Your task to perform on an android device: Open the map Image 0: 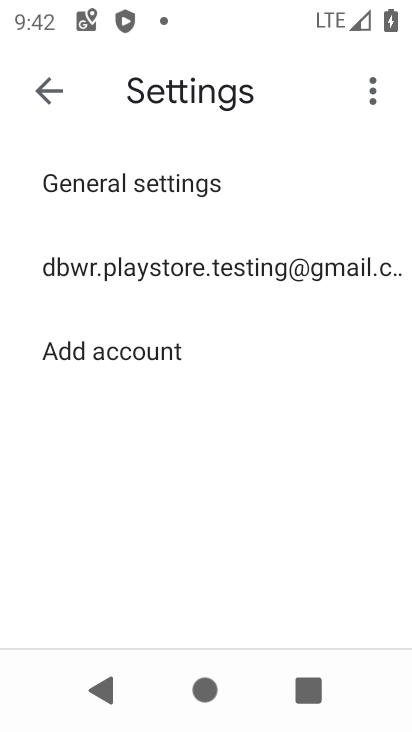
Step 0: press home button
Your task to perform on an android device: Open the map Image 1: 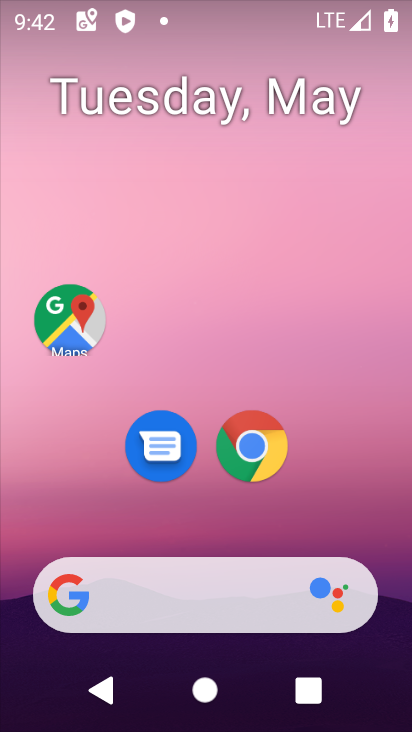
Step 1: drag from (228, 582) to (238, 139)
Your task to perform on an android device: Open the map Image 2: 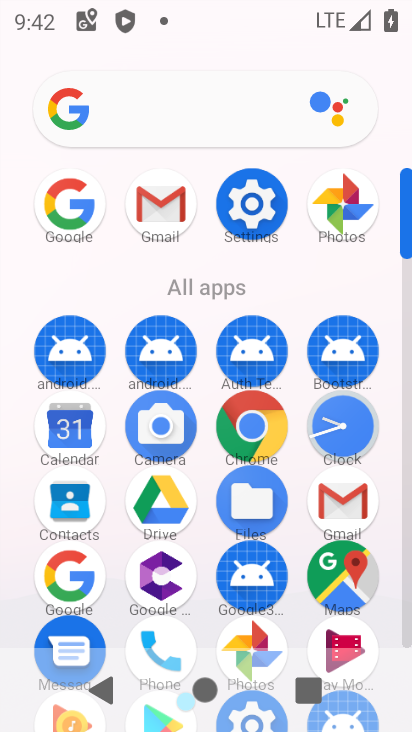
Step 2: click (344, 582)
Your task to perform on an android device: Open the map Image 3: 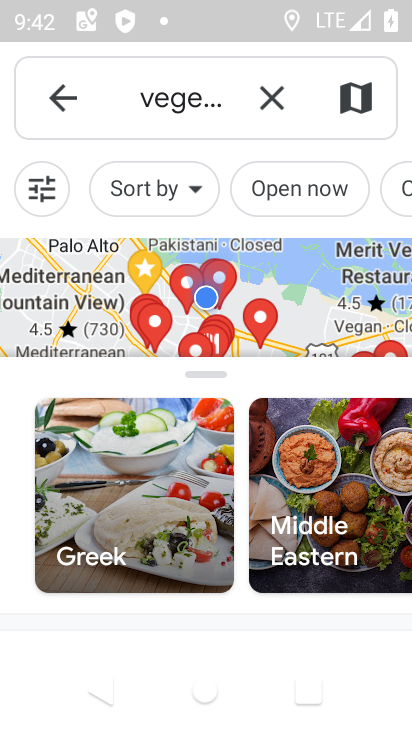
Step 3: task complete